Your task to perform on an android device: Go to eBay Image 0: 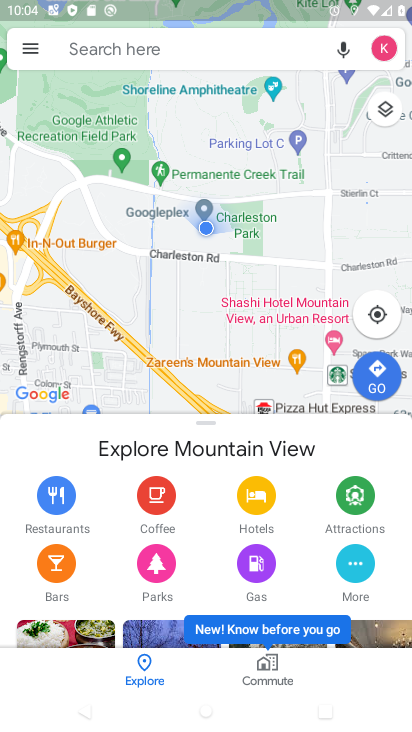
Step 0: press back button
Your task to perform on an android device: Go to eBay Image 1: 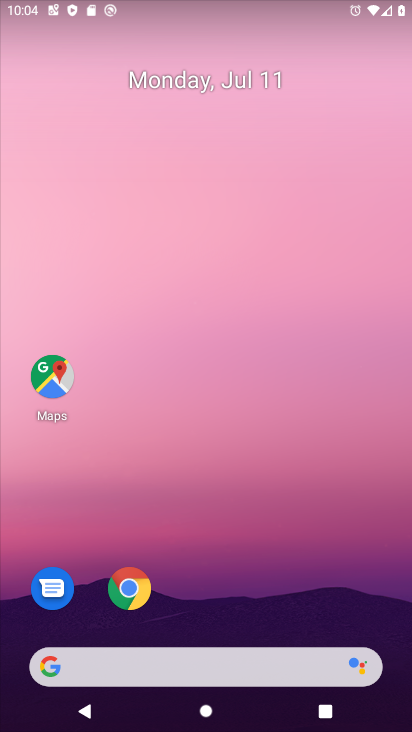
Step 1: click (110, 595)
Your task to perform on an android device: Go to eBay Image 2: 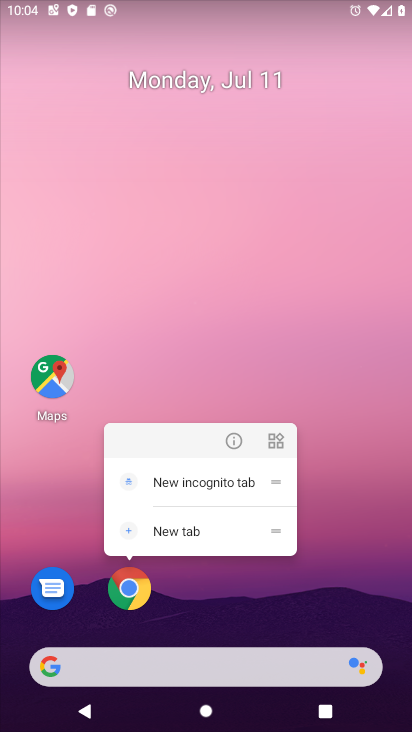
Step 2: click (140, 582)
Your task to perform on an android device: Go to eBay Image 3: 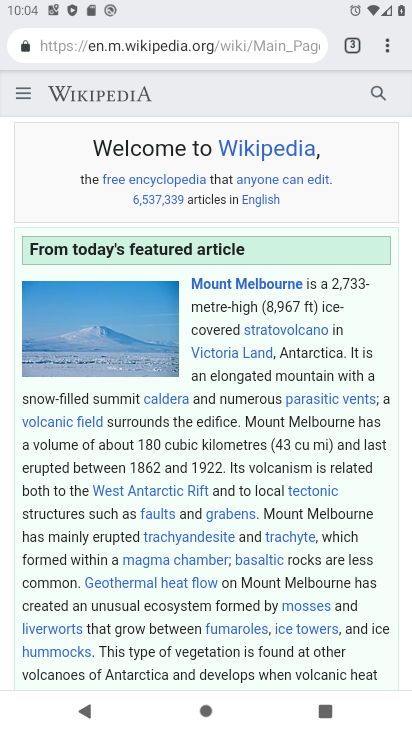
Step 3: click (344, 40)
Your task to perform on an android device: Go to eBay Image 4: 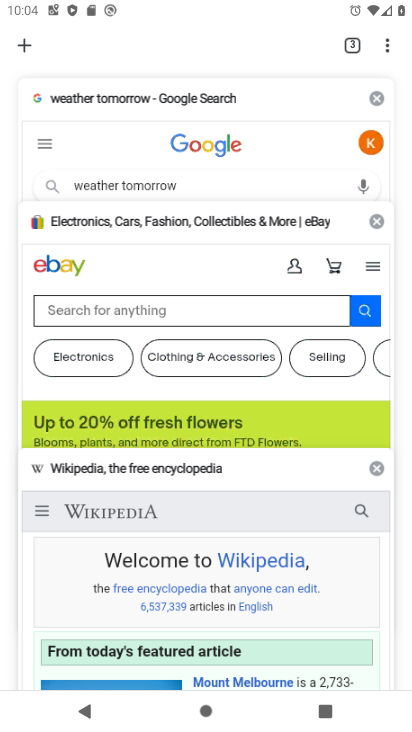
Step 4: click (123, 253)
Your task to perform on an android device: Go to eBay Image 5: 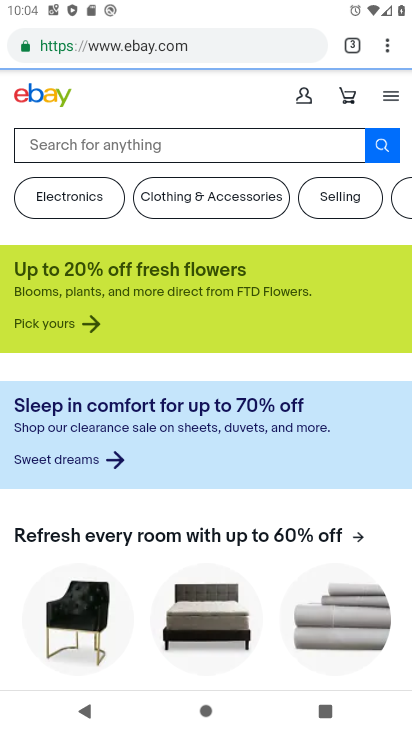
Step 5: task complete